Your task to perform on an android device: delete browsing data in the chrome app Image 0: 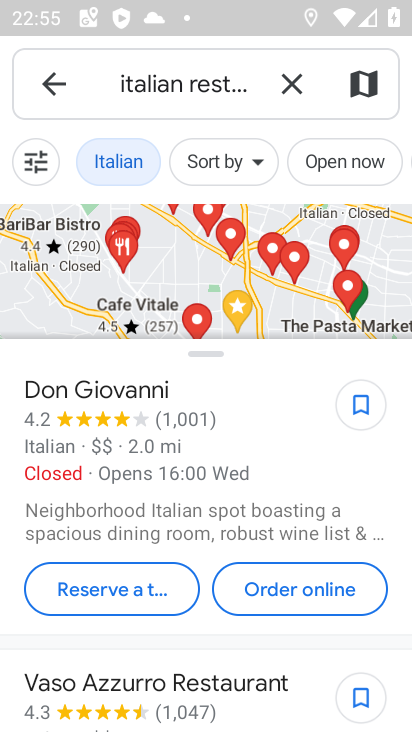
Step 0: press home button
Your task to perform on an android device: delete browsing data in the chrome app Image 1: 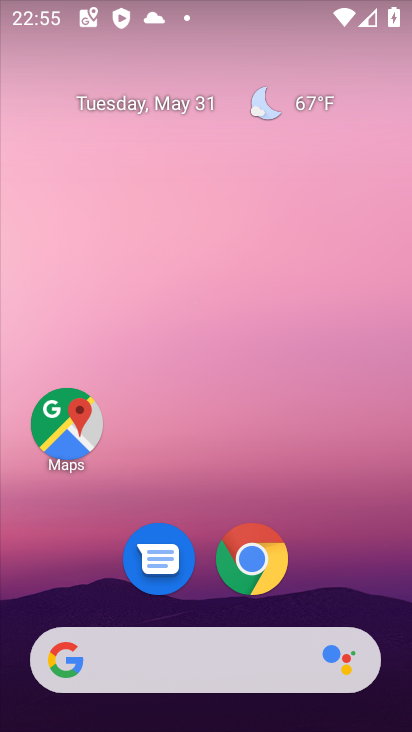
Step 1: click (258, 558)
Your task to perform on an android device: delete browsing data in the chrome app Image 2: 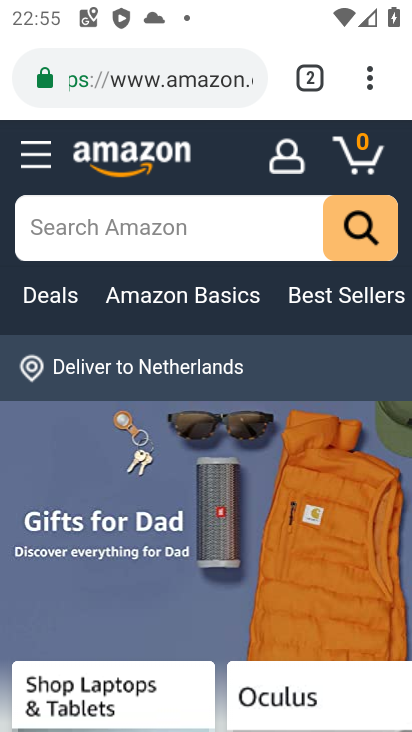
Step 2: click (361, 77)
Your task to perform on an android device: delete browsing data in the chrome app Image 3: 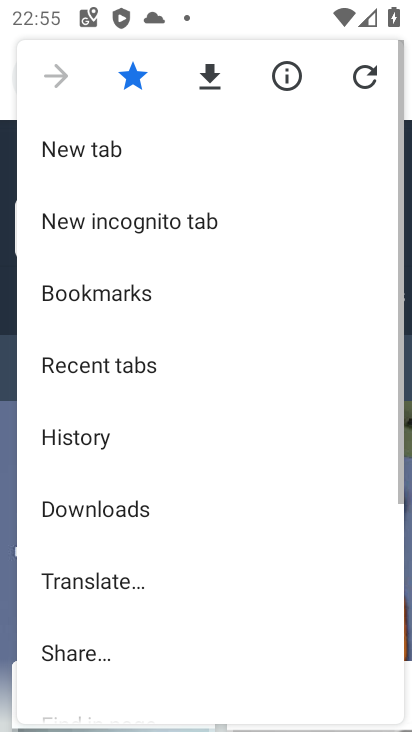
Step 3: drag from (160, 620) to (122, 210)
Your task to perform on an android device: delete browsing data in the chrome app Image 4: 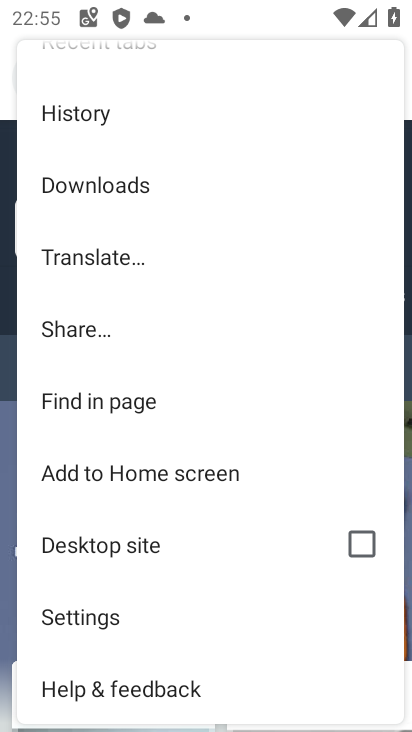
Step 4: click (80, 625)
Your task to perform on an android device: delete browsing data in the chrome app Image 5: 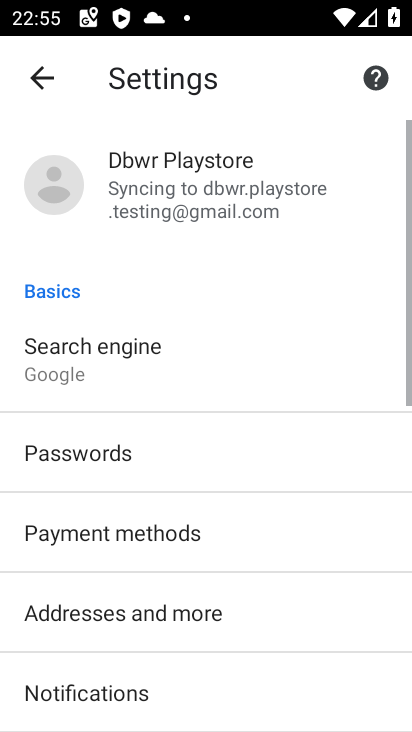
Step 5: drag from (175, 621) to (185, 143)
Your task to perform on an android device: delete browsing data in the chrome app Image 6: 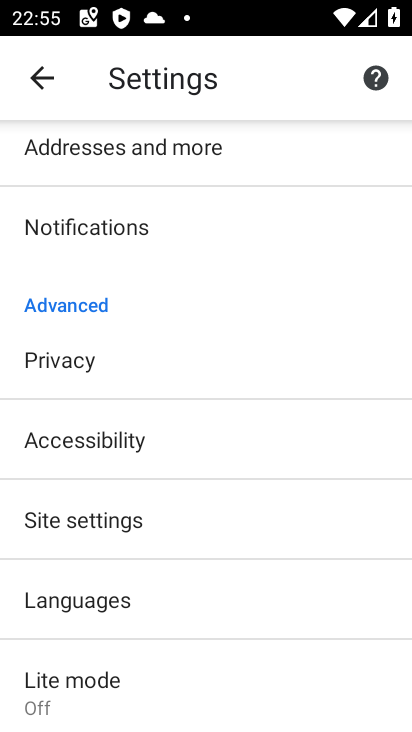
Step 6: click (118, 368)
Your task to perform on an android device: delete browsing data in the chrome app Image 7: 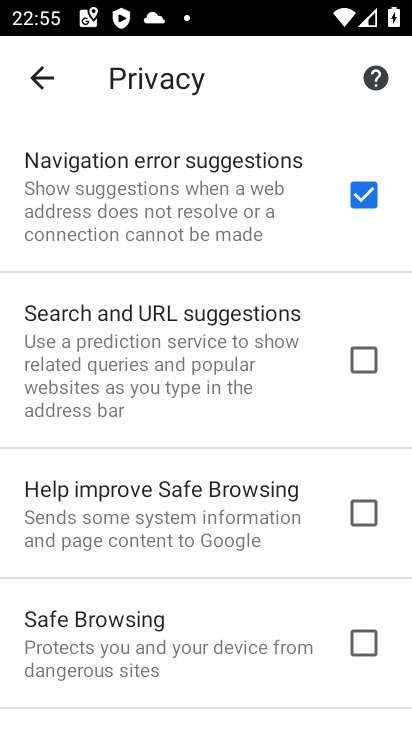
Step 7: drag from (189, 629) to (192, 53)
Your task to perform on an android device: delete browsing data in the chrome app Image 8: 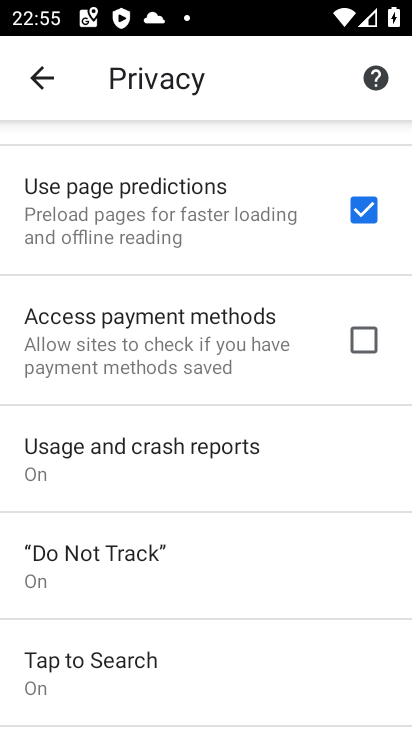
Step 8: drag from (169, 645) to (104, 171)
Your task to perform on an android device: delete browsing data in the chrome app Image 9: 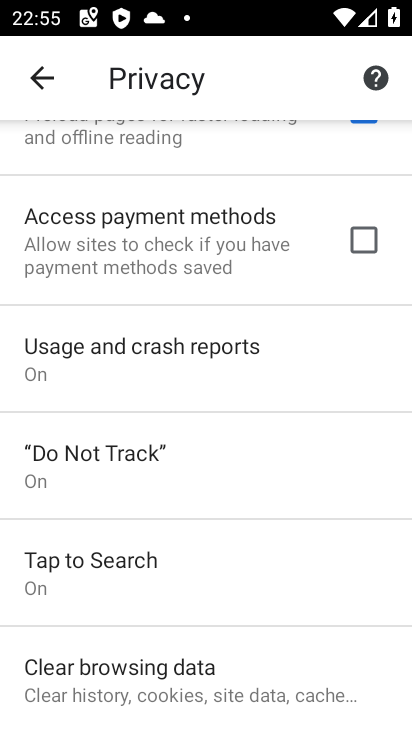
Step 9: click (130, 690)
Your task to perform on an android device: delete browsing data in the chrome app Image 10: 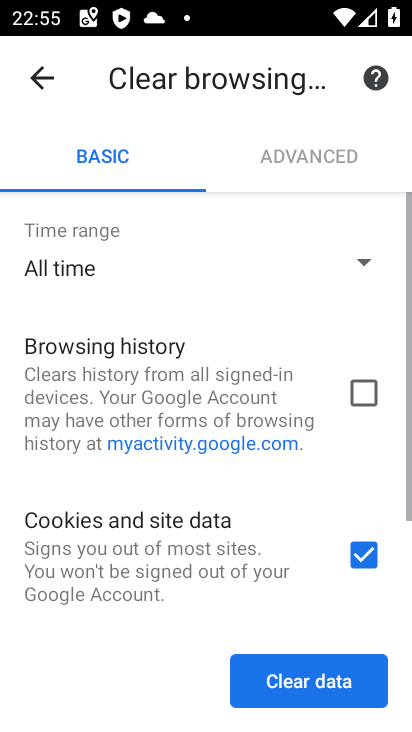
Step 10: click (358, 399)
Your task to perform on an android device: delete browsing data in the chrome app Image 11: 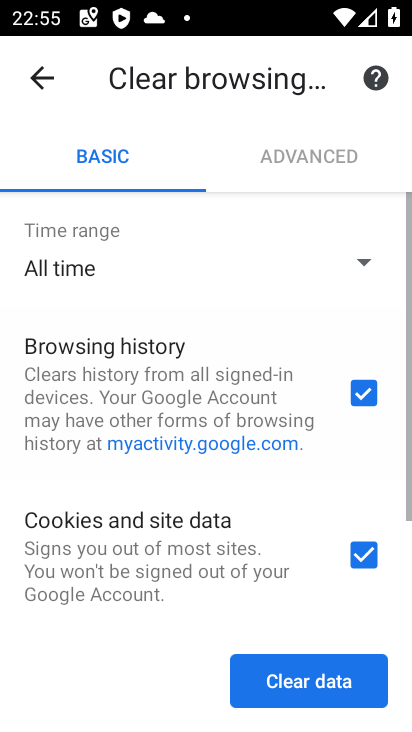
Step 11: click (364, 561)
Your task to perform on an android device: delete browsing data in the chrome app Image 12: 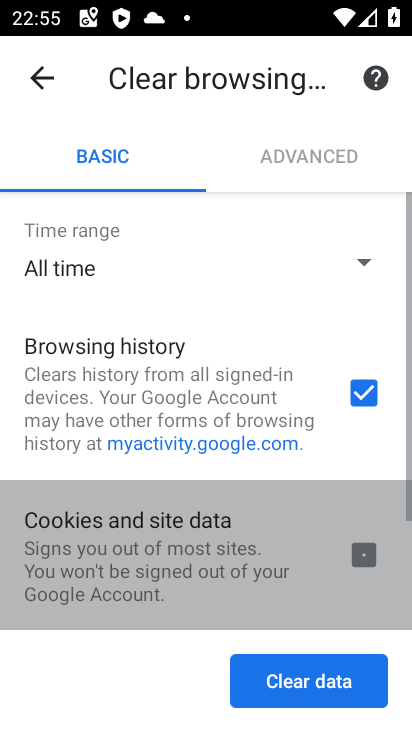
Step 12: drag from (272, 511) to (278, 271)
Your task to perform on an android device: delete browsing data in the chrome app Image 13: 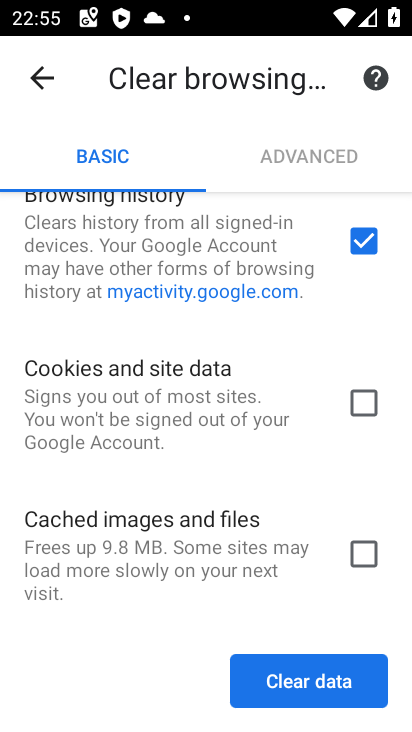
Step 13: click (329, 680)
Your task to perform on an android device: delete browsing data in the chrome app Image 14: 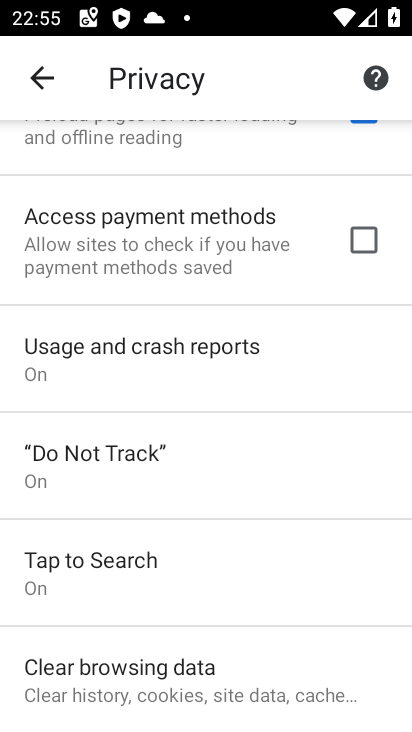
Step 14: task complete